Your task to perform on an android device: Go to location settings Image 0: 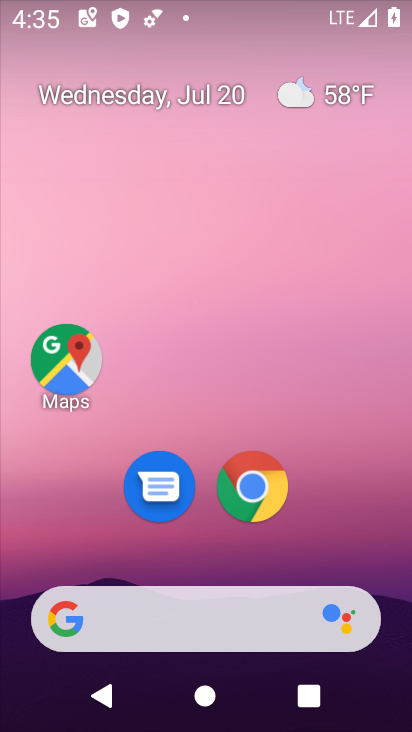
Step 0: drag from (138, 564) to (219, 7)
Your task to perform on an android device: Go to location settings Image 1: 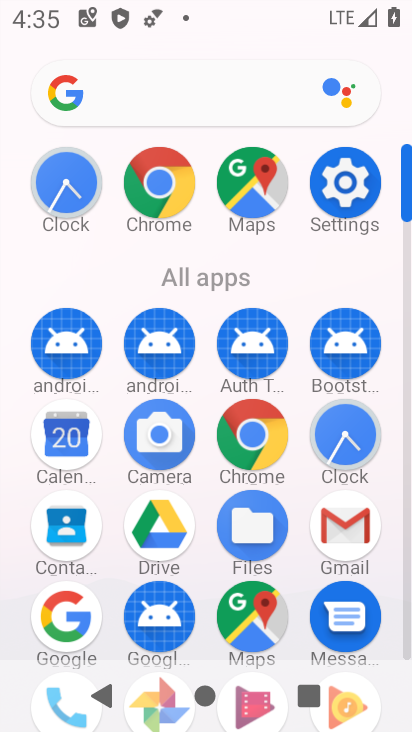
Step 1: click (321, 193)
Your task to perform on an android device: Go to location settings Image 2: 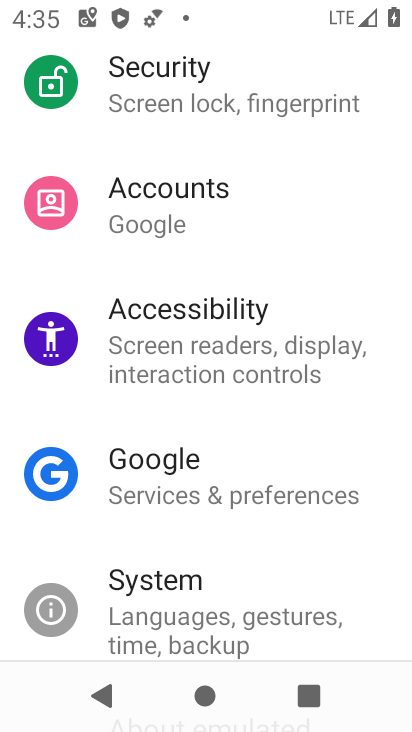
Step 2: drag from (225, 161) to (215, 694)
Your task to perform on an android device: Go to location settings Image 3: 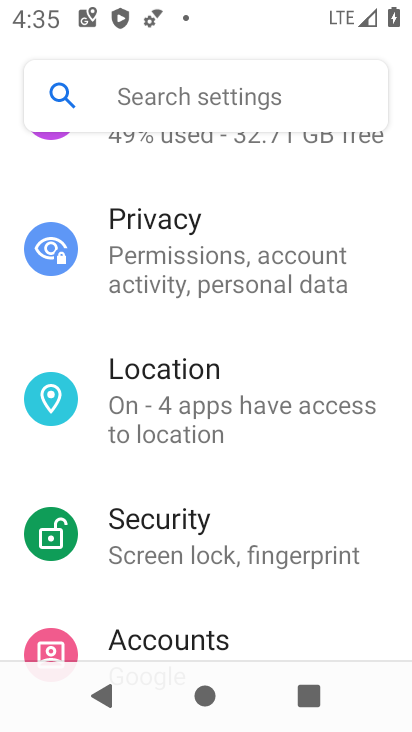
Step 3: click (174, 418)
Your task to perform on an android device: Go to location settings Image 4: 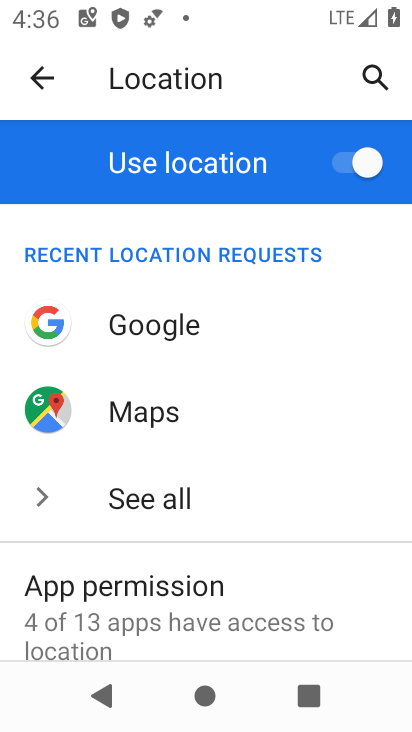
Step 4: task complete